Your task to perform on an android device: toggle sleep mode Image 0: 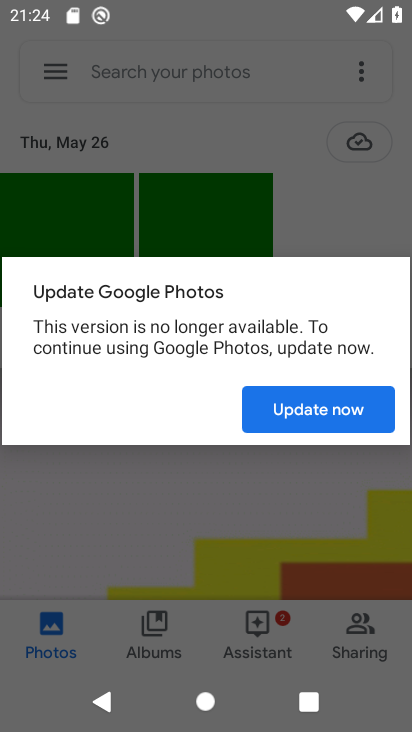
Step 0: press home button
Your task to perform on an android device: toggle sleep mode Image 1: 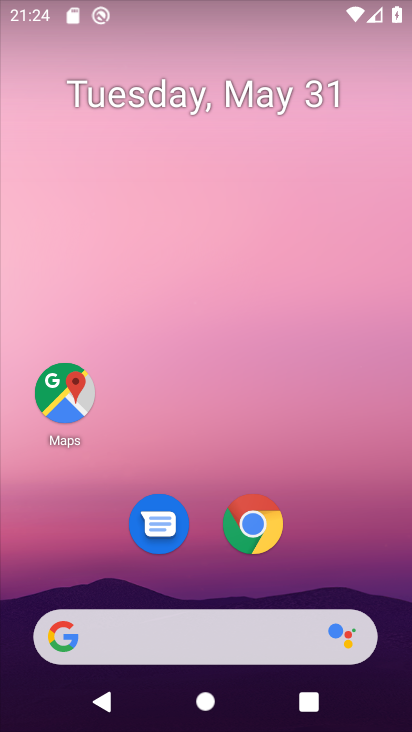
Step 1: drag from (279, 475) to (294, 14)
Your task to perform on an android device: toggle sleep mode Image 2: 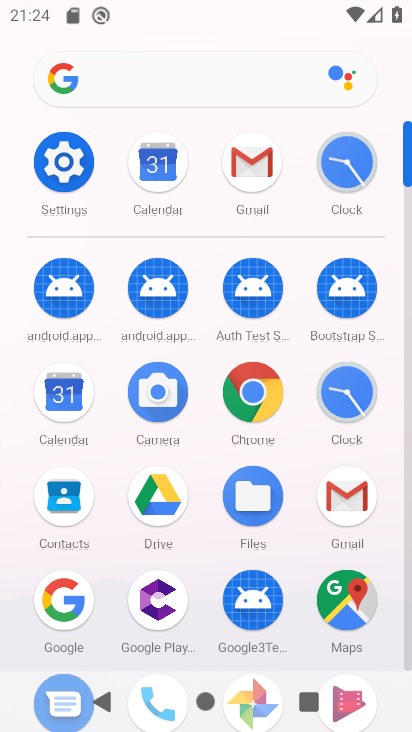
Step 2: click (74, 147)
Your task to perform on an android device: toggle sleep mode Image 3: 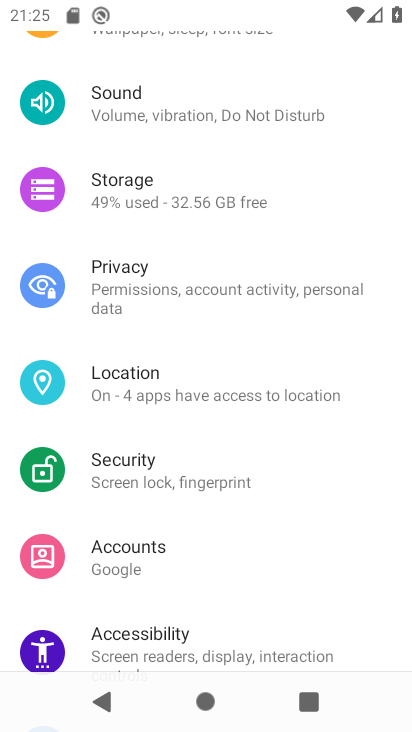
Step 3: drag from (254, 211) to (248, 417)
Your task to perform on an android device: toggle sleep mode Image 4: 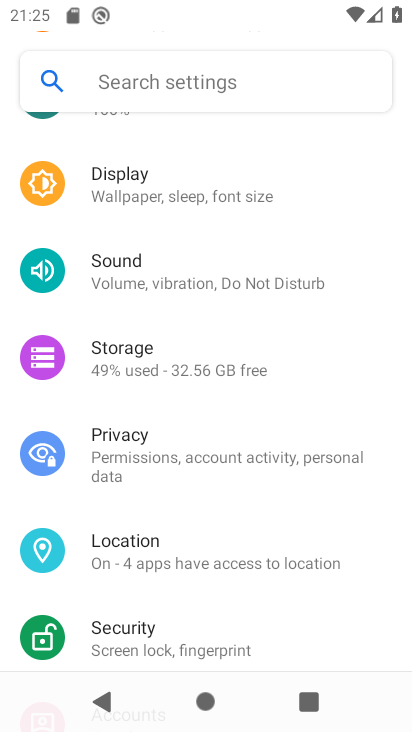
Step 4: click (223, 189)
Your task to perform on an android device: toggle sleep mode Image 5: 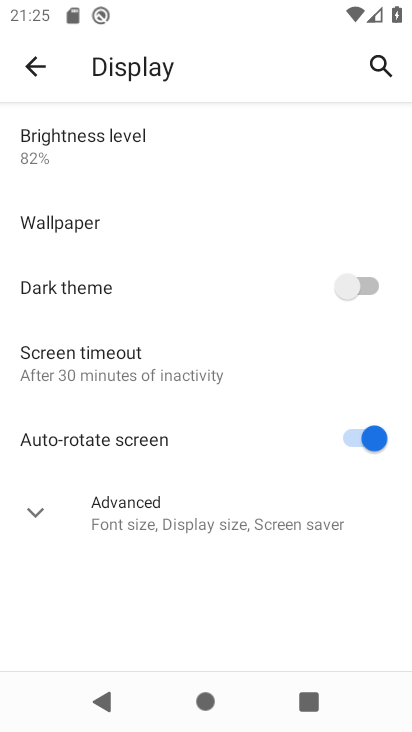
Step 5: click (38, 506)
Your task to perform on an android device: toggle sleep mode Image 6: 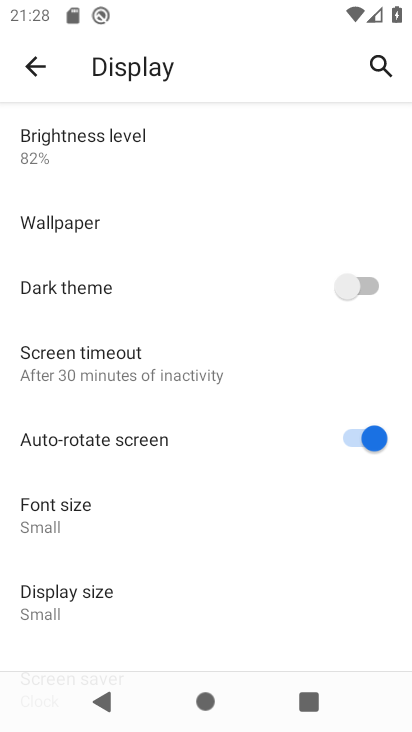
Step 6: task complete